Your task to perform on an android device: Check the weather Image 0: 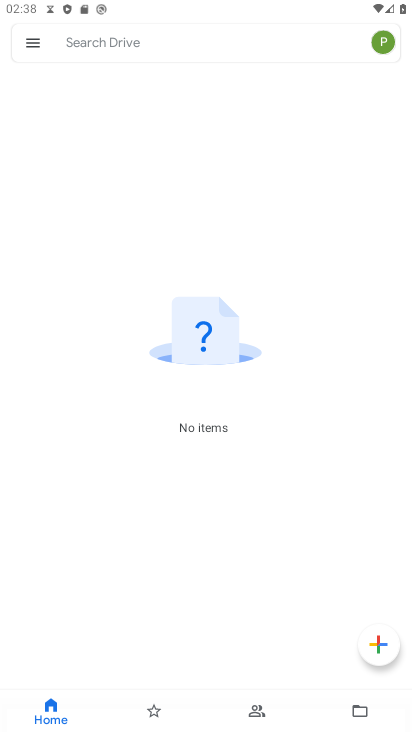
Step 0: press back button
Your task to perform on an android device: Check the weather Image 1: 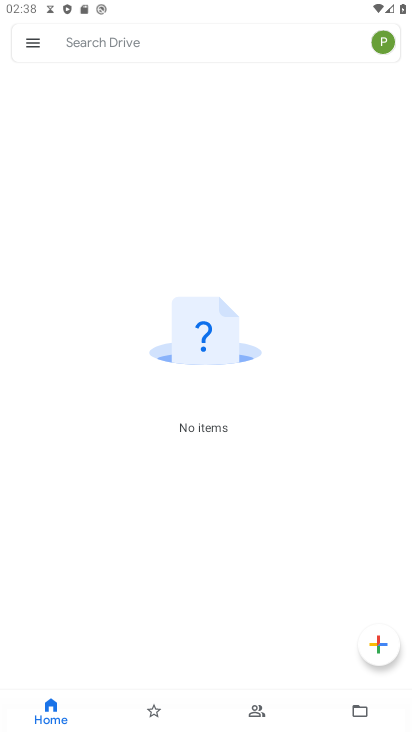
Step 1: press back button
Your task to perform on an android device: Check the weather Image 2: 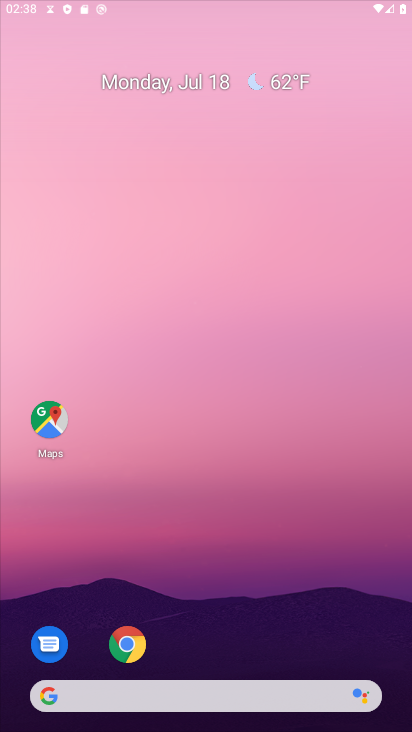
Step 2: press back button
Your task to perform on an android device: Check the weather Image 3: 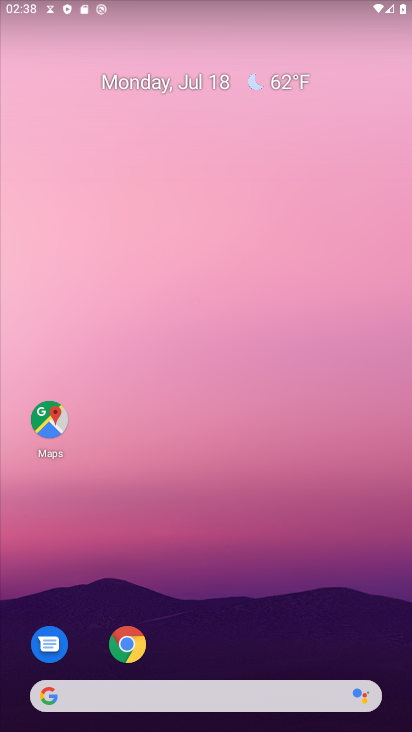
Step 3: drag from (265, 555) to (218, 34)
Your task to perform on an android device: Check the weather Image 4: 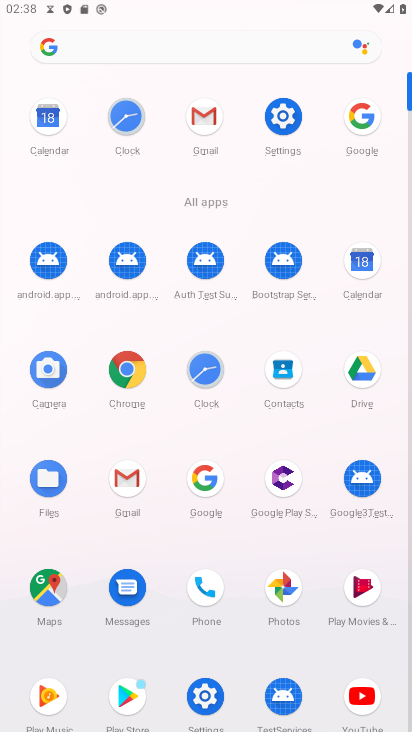
Step 4: click (123, 368)
Your task to perform on an android device: Check the weather Image 5: 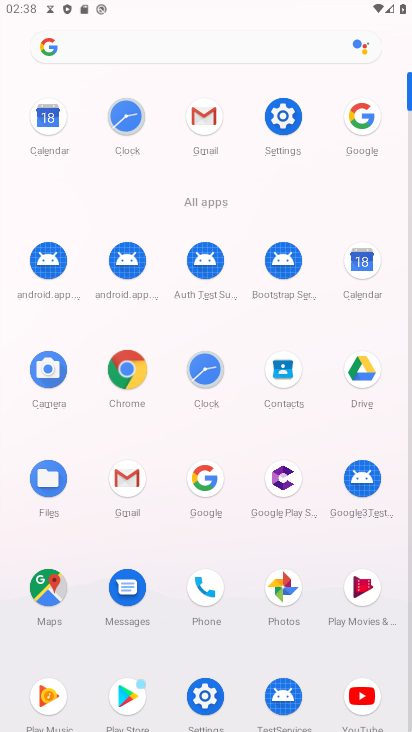
Step 5: click (131, 374)
Your task to perform on an android device: Check the weather Image 6: 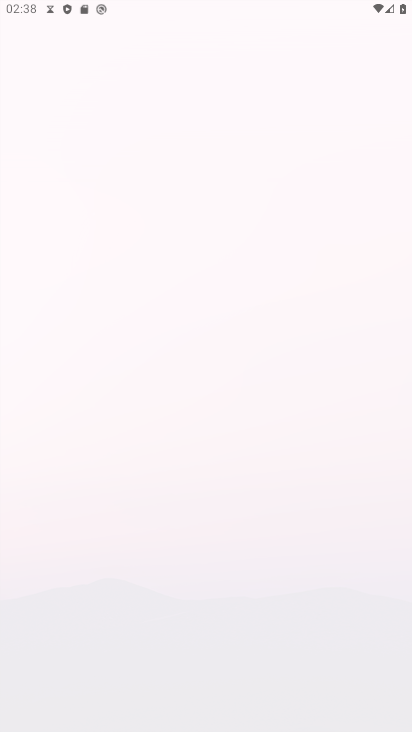
Step 6: click (128, 373)
Your task to perform on an android device: Check the weather Image 7: 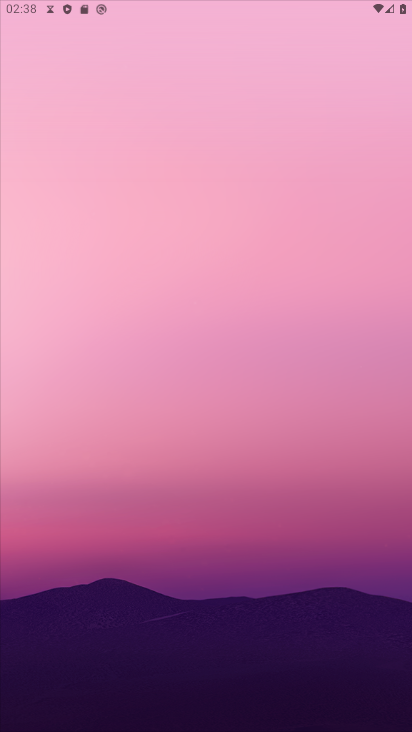
Step 7: click (128, 373)
Your task to perform on an android device: Check the weather Image 8: 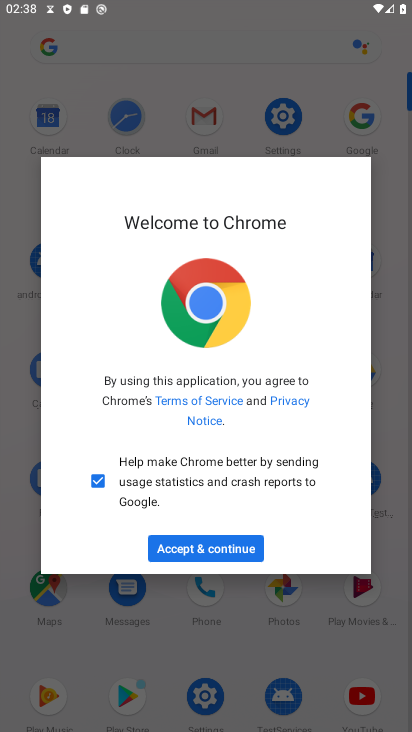
Step 8: click (219, 548)
Your task to perform on an android device: Check the weather Image 9: 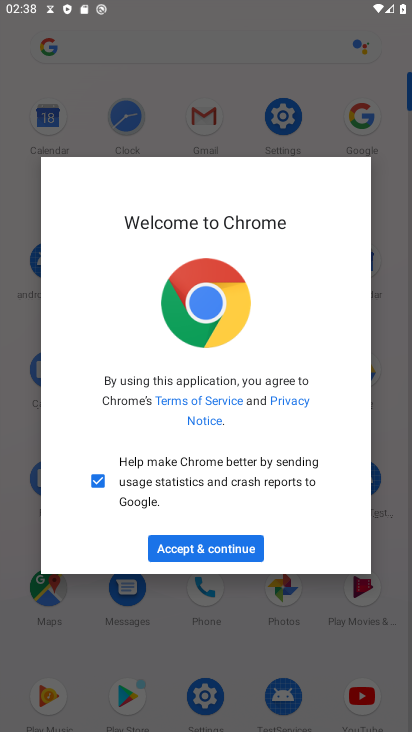
Step 9: click (214, 545)
Your task to perform on an android device: Check the weather Image 10: 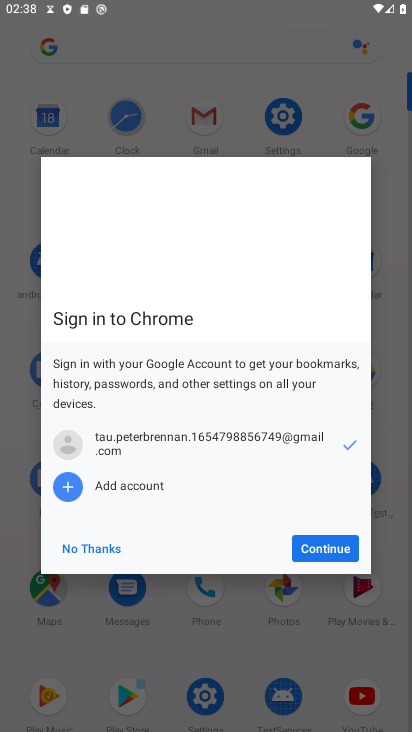
Step 10: click (224, 539)
Your task to perform on an android device: Check the weather Image 11: 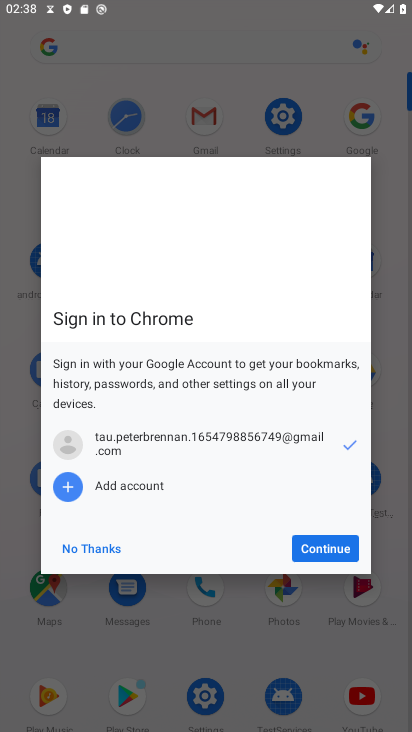
Step 11: click (347, 542)
Your task to perform on an android device: Check the weather Image 12: 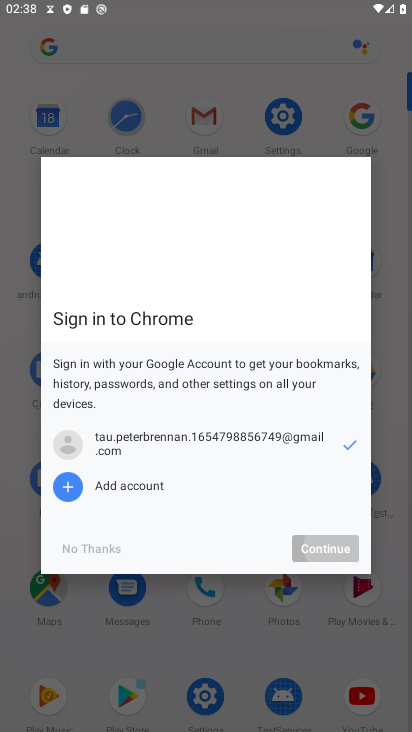
Step 12: click (338, 552)
Your task to perform on an android device: Check the weather Image 13: 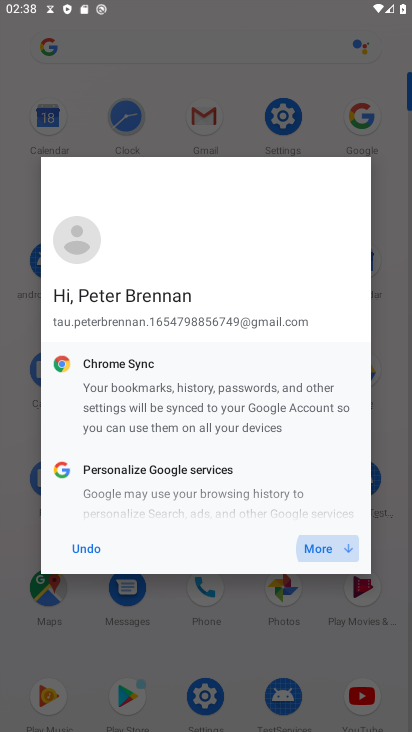
Step 13: click (330, 555)
Your task to perform on an android device: Check the weather Image 14: 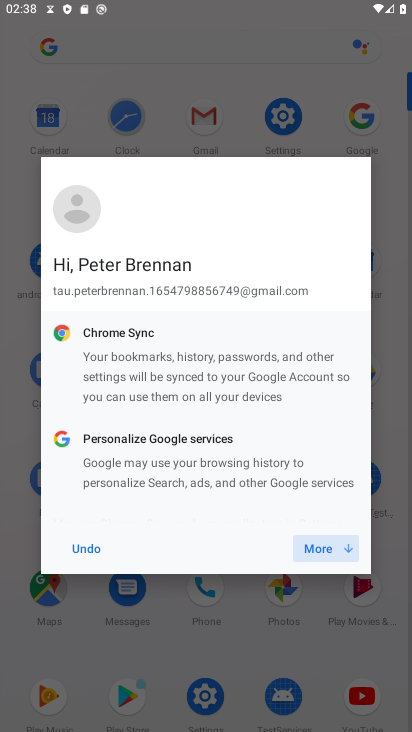
Step 14: click (331, 557)
Your task to perform on an android device: Check the weather Image 15: 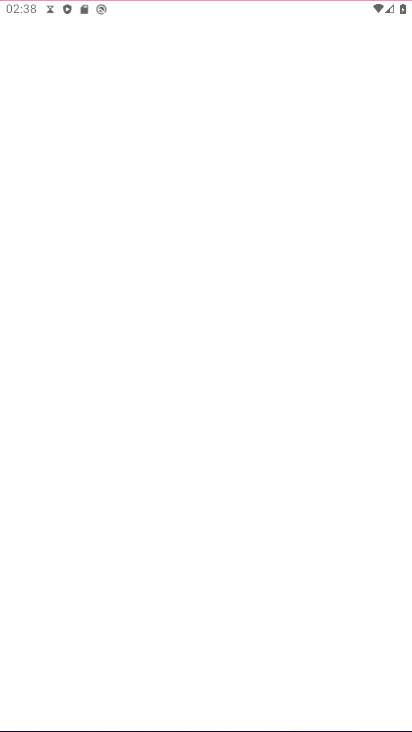
Step 15: click (331, 558)
Your task to perform on an android device: Check the weather Image 16: 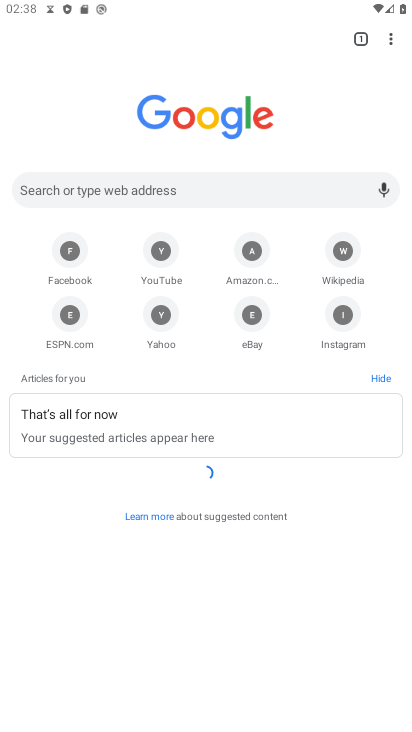
Step 16: click (164, 187)
Your task to perform on an android device: Check the weather Image 17: 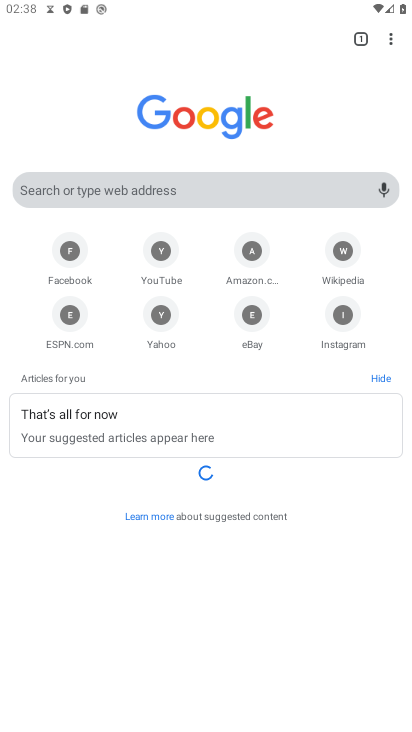
Step 17: click (164, 187)
Your task to perform on an android device: Check the weather Image 18: 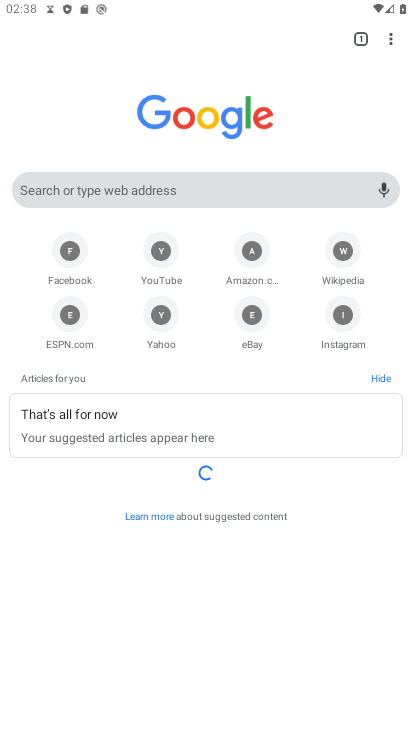
Step 18: click (164, 187)
Your task to perform on an android device: Check the weather Image 19: 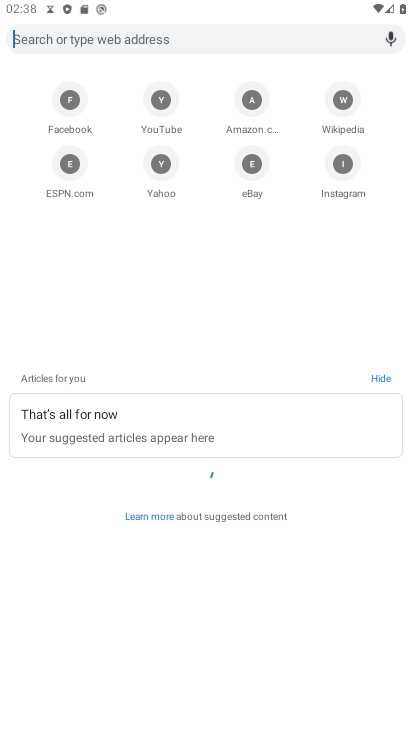
Step 19: click (165, 189)
Your task to perform on an android device: Check the weather Image 20: 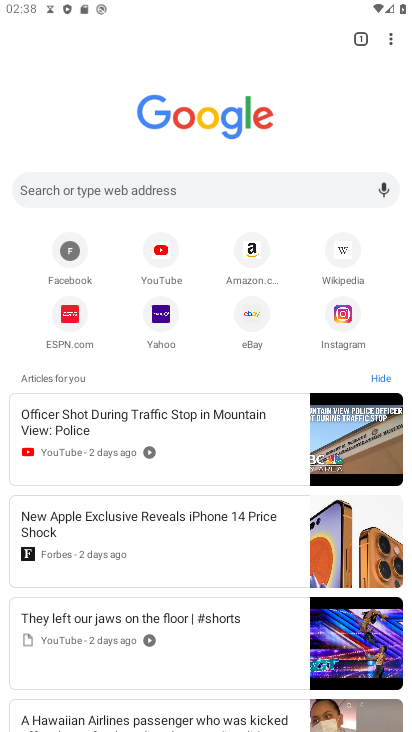
Step 20: click (105, 203)
Your task to perform on an android device: Check the weather Image 21: 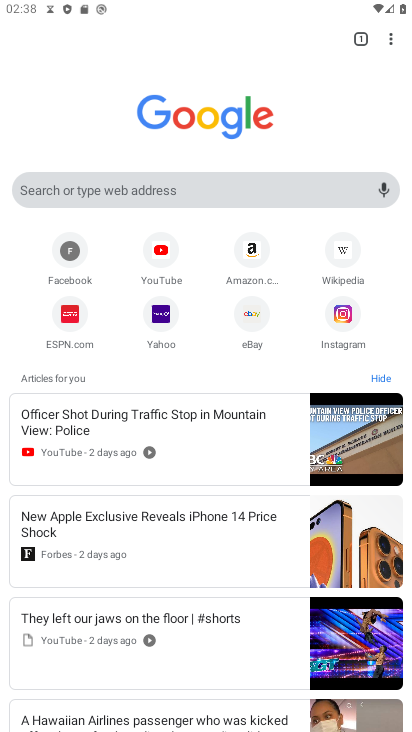
Step 21: click (77, 191)
Your task to perform on an android device: Check the weather Image 22: 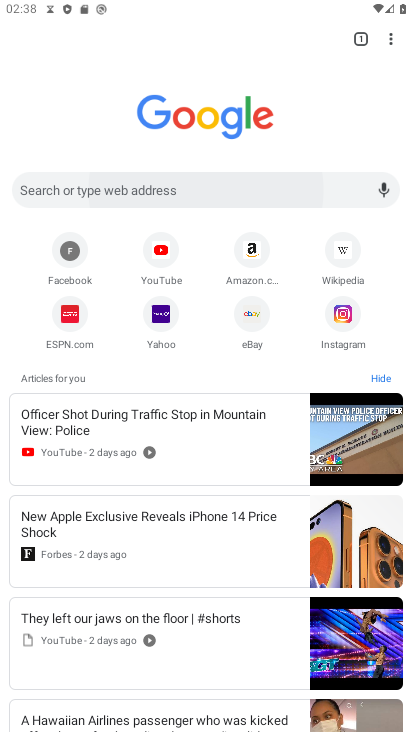
Step 22: click (77, 191)
Your task to perform on an android device: Check the weather Image 23: 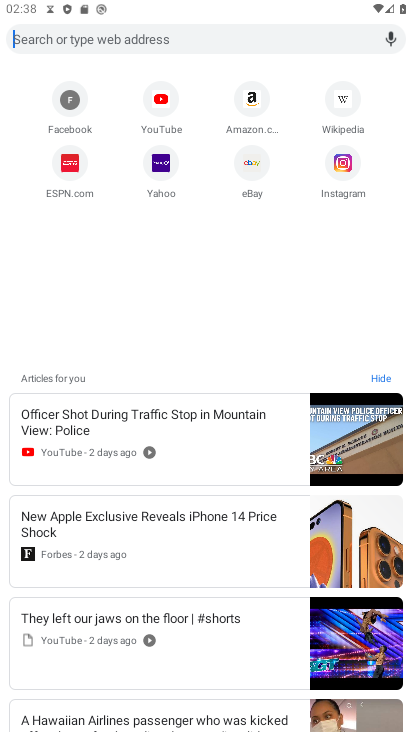
Step 23: click (77, 191)
Your task to perform on an android device: Check the weather Image 24: 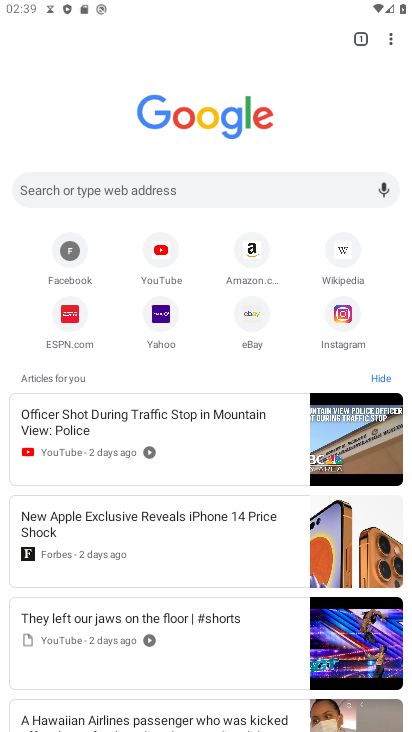
Step 24: click (60, 196)
Your task to perform on an android device: Check the weather Image 25: 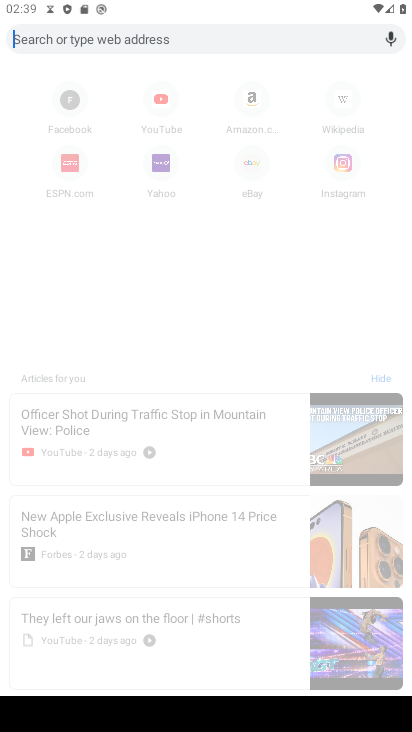
Step 25: type "weather"
Your task to perform on an android device: Check the weather Image 26: 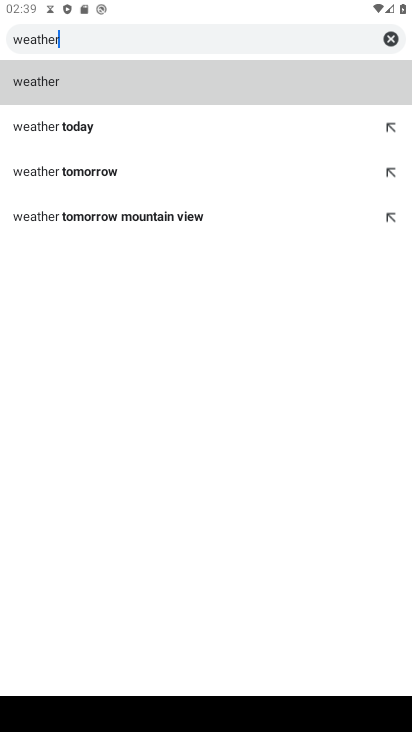
Step 26: click (54, 129)
Your task to perform on an android device: Check the weather Image 27: 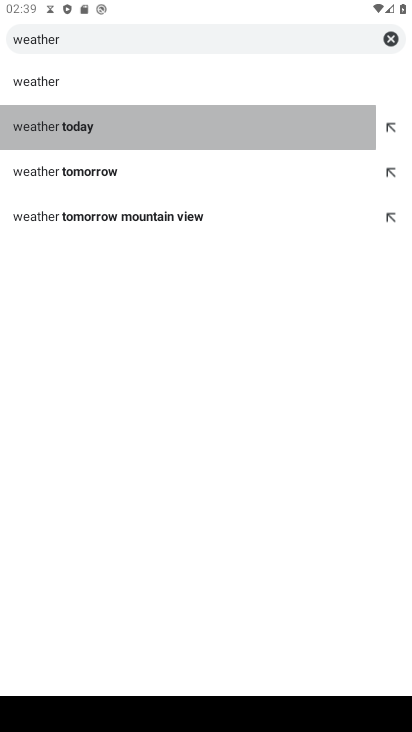
Step 27: click (54, 129)
Your task to perform on an android device: Check the weather Image 28: 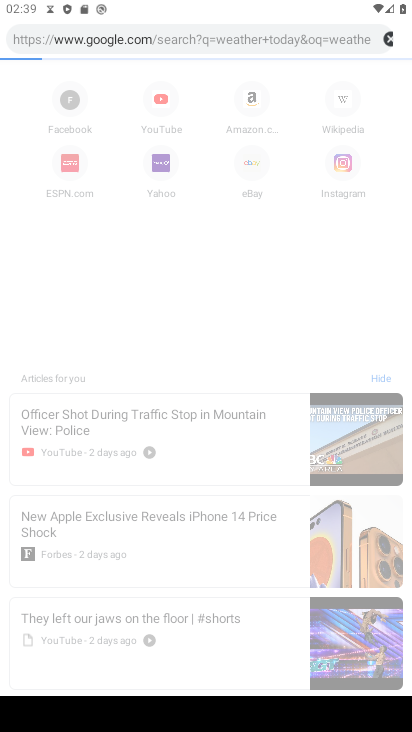
Step 28: click (59, 127)
Your task to perform on an android device: Check the weather Image 29: 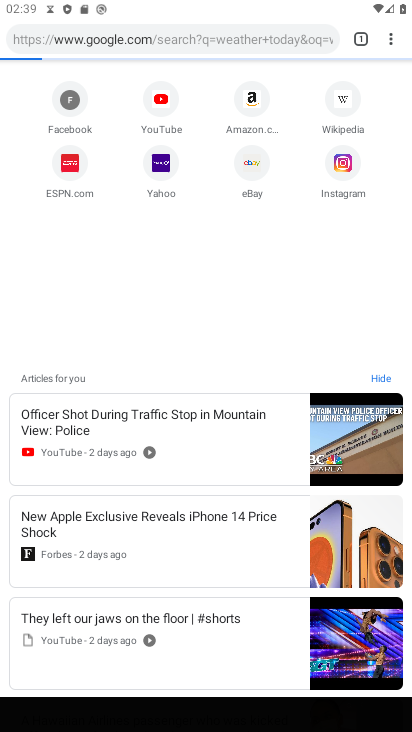
Step 29: click (59, 127)
Your task to perform on an android device: Check the weather Image 30: 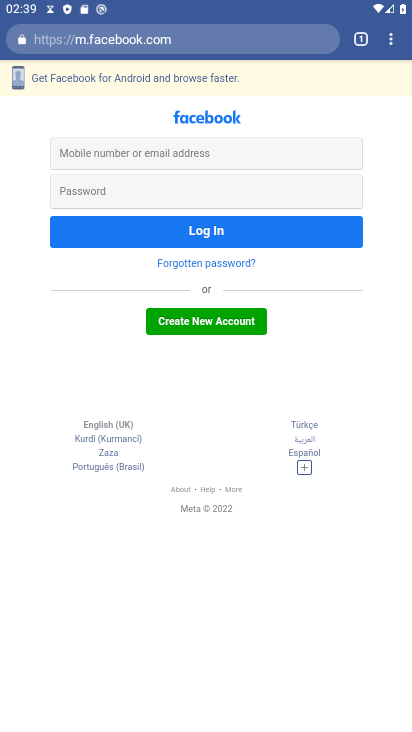
Step 30: task complete